Your task to perform on an android device: search for starred emails in the gmail app Image 0: 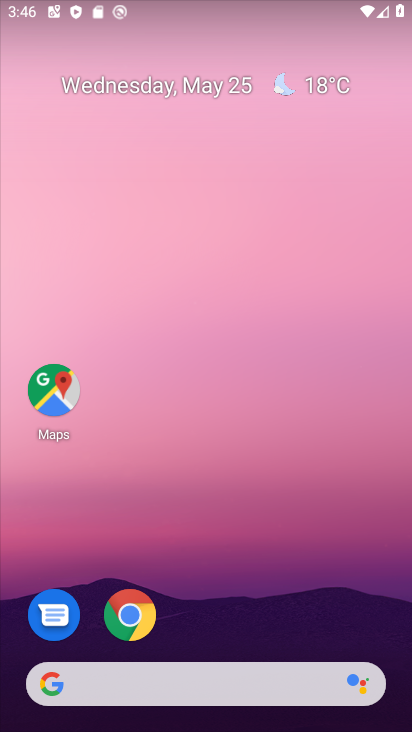
Step 0: drag from (343, 604) to (300, 0)
Your task to perform on an android device: search for starred emails in the gmail app Image 1: 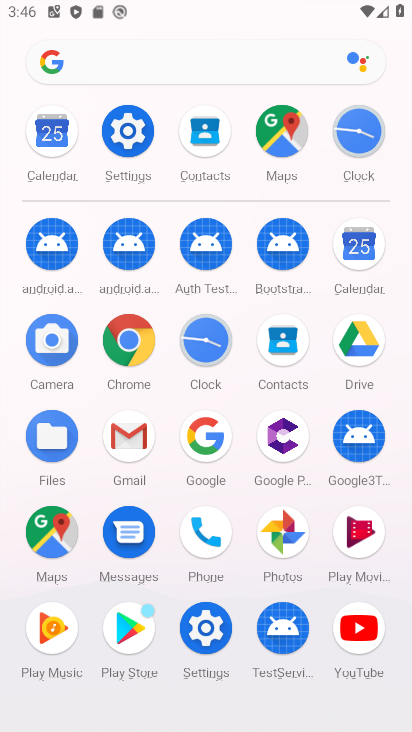
Step 1: click (116, 425)
Your task to perform on an android device: search for starred emails in the gmail app Image 2: 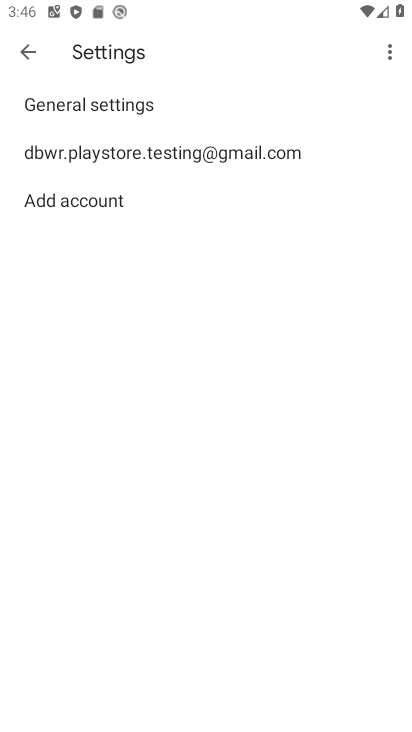
Step 2: click (193, 154)
Your task to perform on an android device: search for starred emails in the gmail app Image 3: 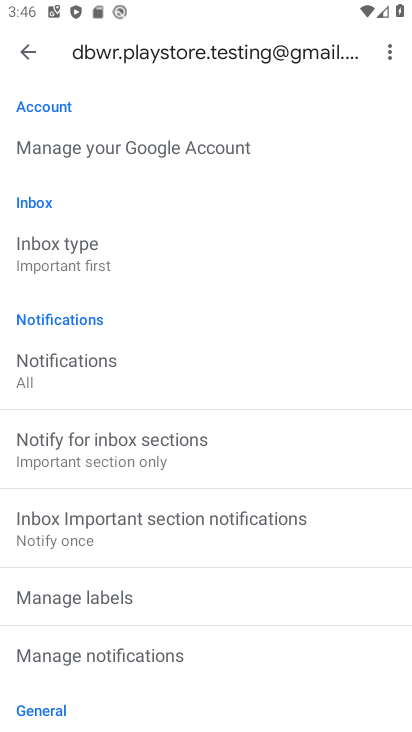
Step 3: click (34, 60)
Your task to perform on an android device: search for starred emails in the gmail app Image 4: 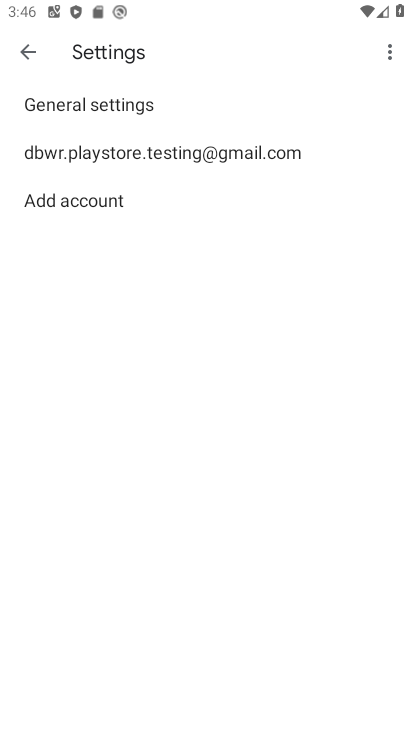
Step 4: click (36, 61)
Your task to perform on an android device: search for starred emails in the gmail app Image 5: 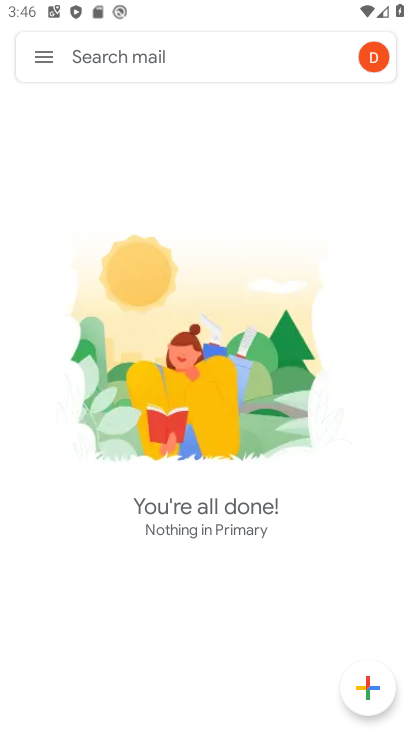
Step 5: click (51, 63)
Your task to perform on an android device: search for starred emails in the gmail app Image 6: 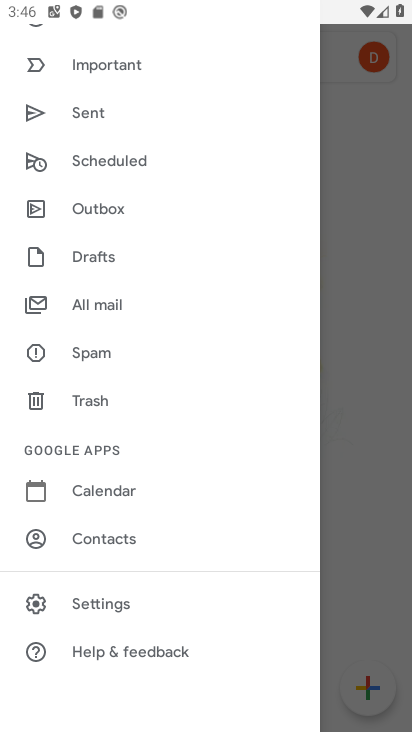
Step 6: drag from (134, 96) to (109, 617)
Your task to perform on an android device: search for starred emails in the gmail app Image 7: 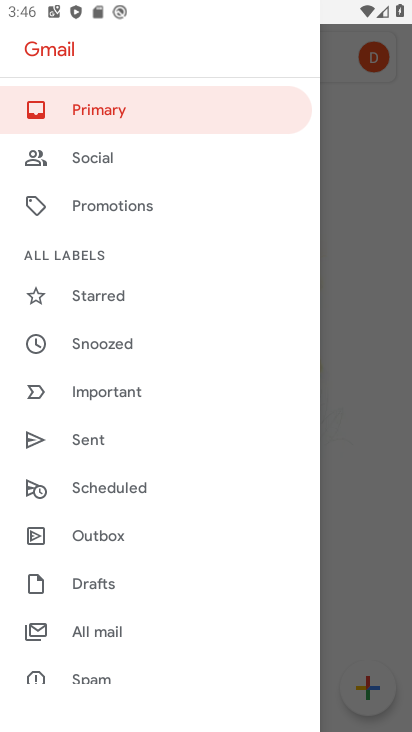
Step 7: click (142, 299)
Your task to perform on an android device: search for starred emails in the gmail app Image 8: 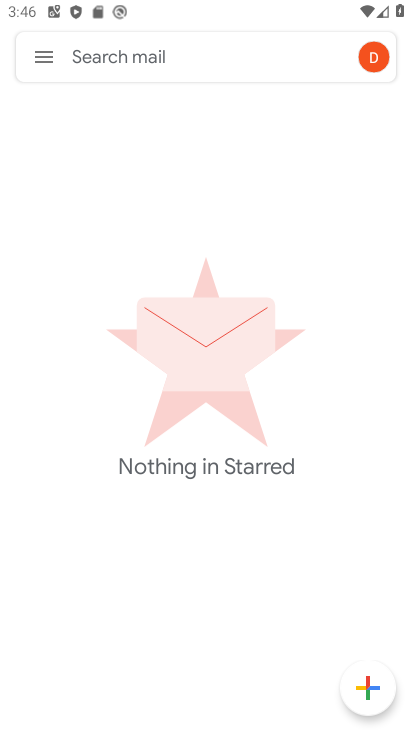
Step 8: task complete